Your task to perform on an android device: Open calendar and show me the third week of next month Image 0: 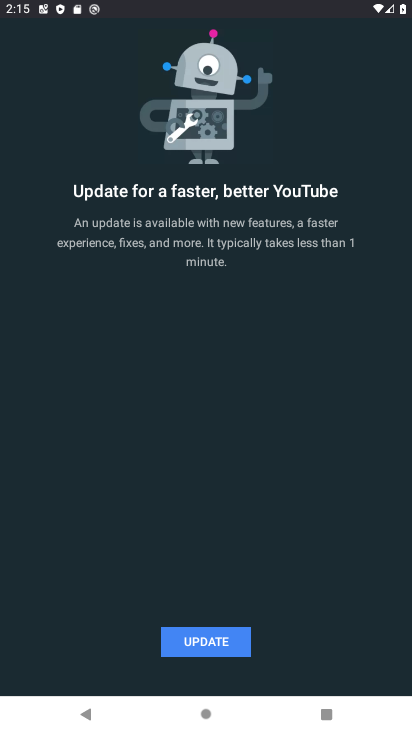
Step 0: task complete